Your task to perform on an android device: Clear all items from cart on bestbuy. Search for "jbl flip 4" on bestbuy, select the first entry, and add it to the cart. Image 0: 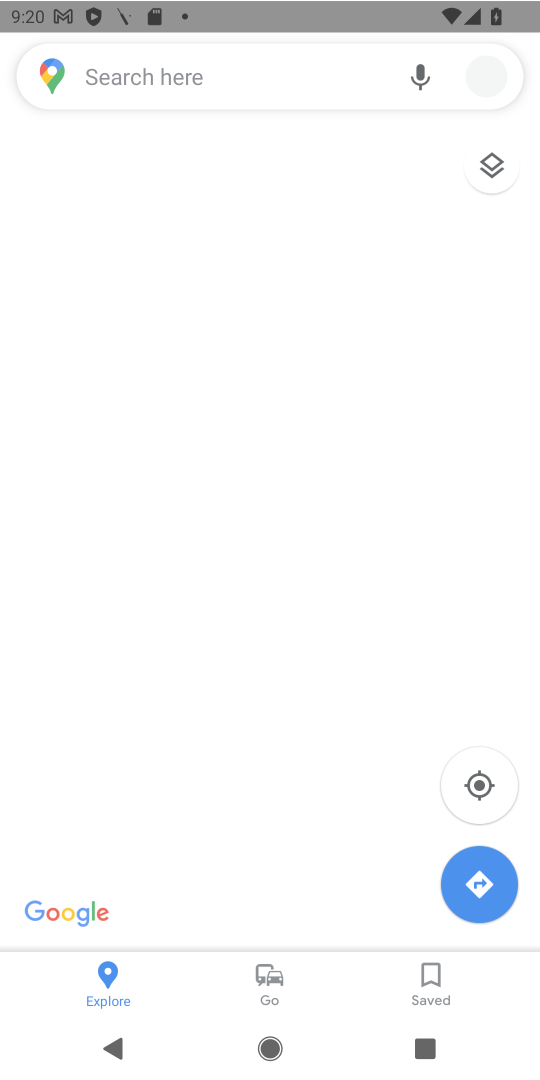
Step 0: press home button
Your task to perform on an android device: Clear all items from cart on bestbuy. Search for "jbl flip 4" on bestbuy, select the first entry, and add it to the cart. Image 1: 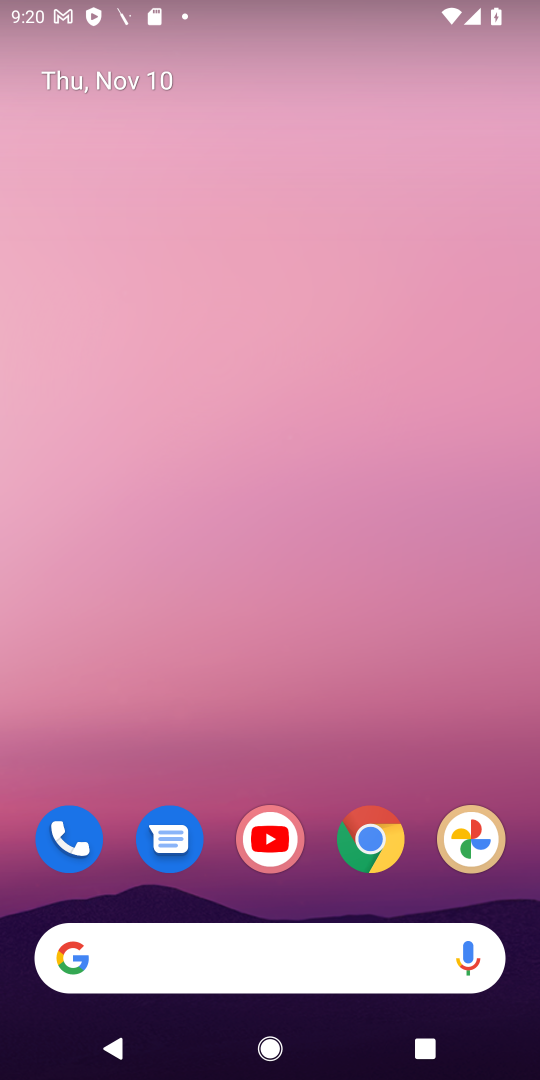
Step 1: click (366, 831)
Your task to perform on an android device: Clear all items from cart on bestbuy. Search for "jbl flip 4" on bestbuy, select the first entry, and add it to the cart. Image 2: 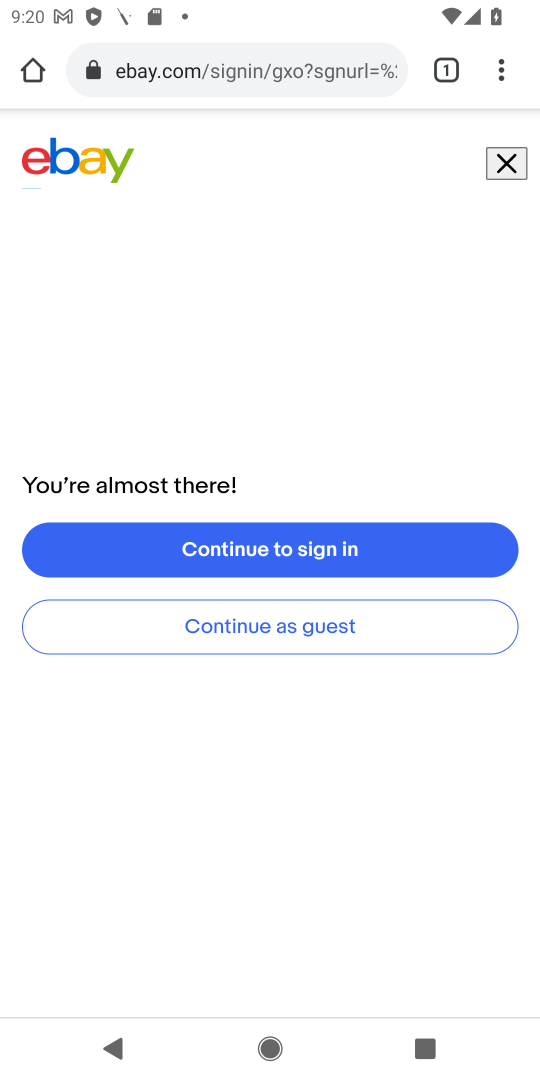
Step 2: click (263, 77)
Your task to perform on an android device: Clear all items from cart on bestbuy. Search for "jbl flip 4" on bestbuy, select the first entry, and add it to the cart. Image 3: 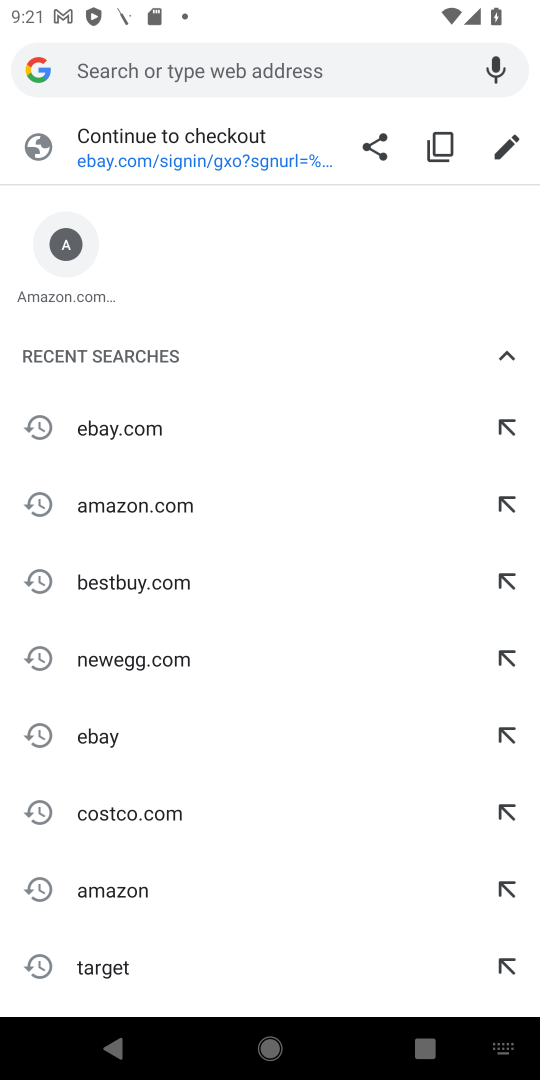
Step 3: type "bestbuy"
Your task to perform on an android device: Clear all items from cart on bestbuy. Search for "jbl flip 4" on bestbuy, select the first entry, and add it to the cart. Image 4: 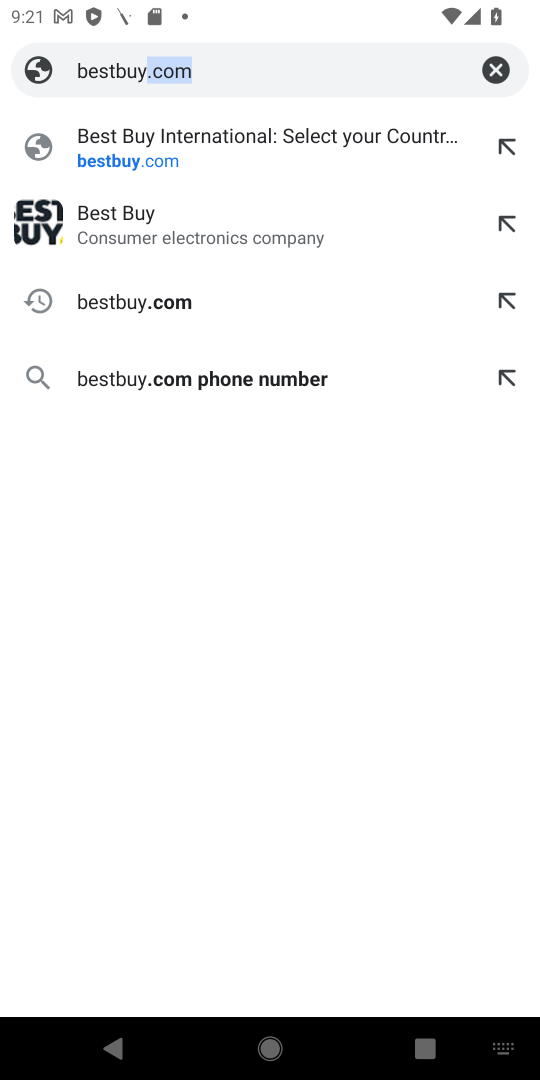
Step 4: click (361, 71)
Your task to perform on an android device: Clear all items from cart on bestbuy. Search for "jbl flip 4" on bestbuy, select the first entry, and add it to the cart. Image 5: 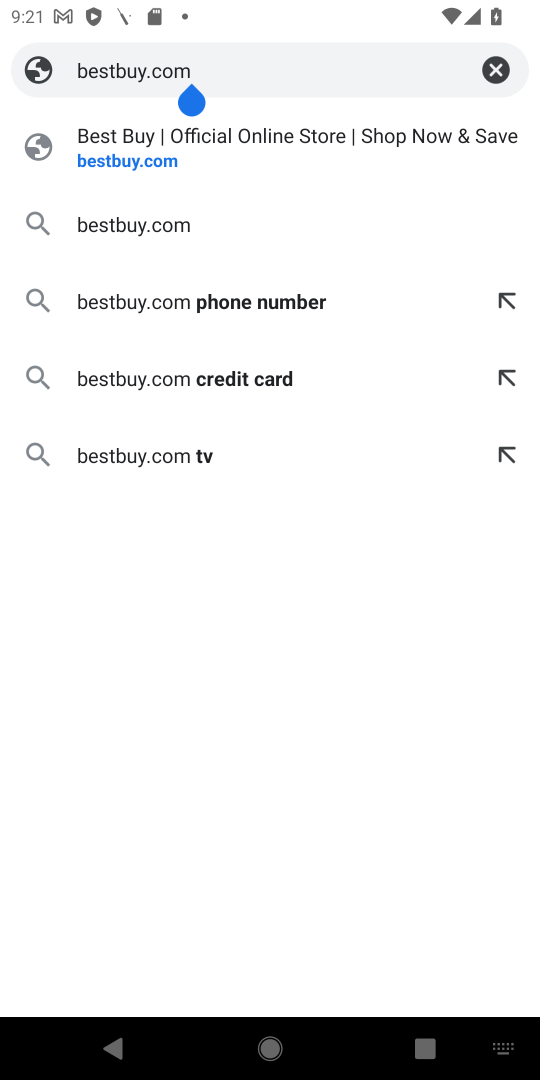
Step 5: click (154, 226)
Your task to perform on an android device: Clear all items from cart on bestbuy. Search for "jbl flip 4" on bestbuy, select the first entry, and add it to the cart. Image 6: 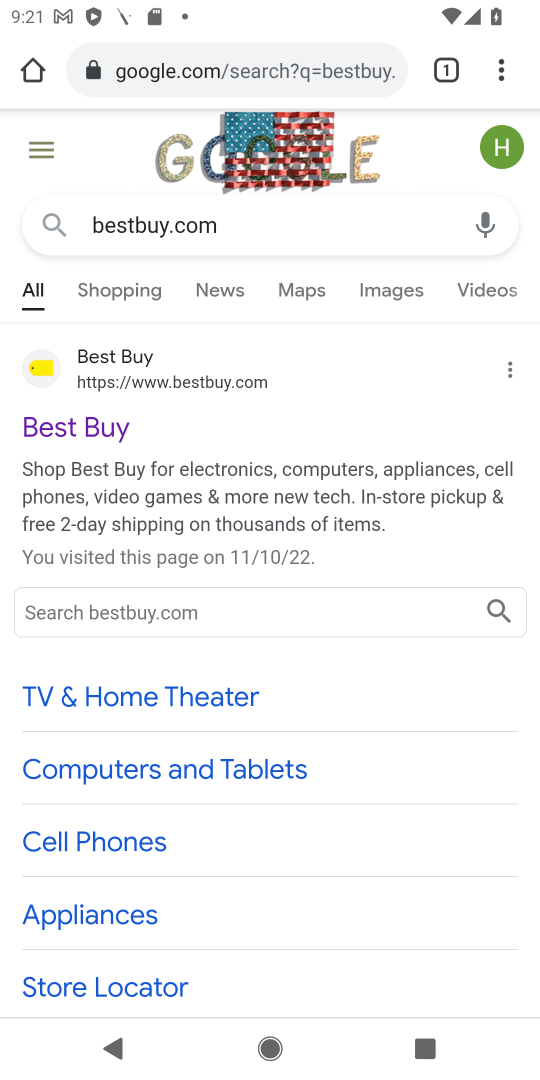
Step 6: click (124, 352)
Your task to perform on an android device: Clear all items from cart on bestbuy. Search for "jbl flip 4" on bestbuy, select the first entry, and add it to the cart. Image 7: 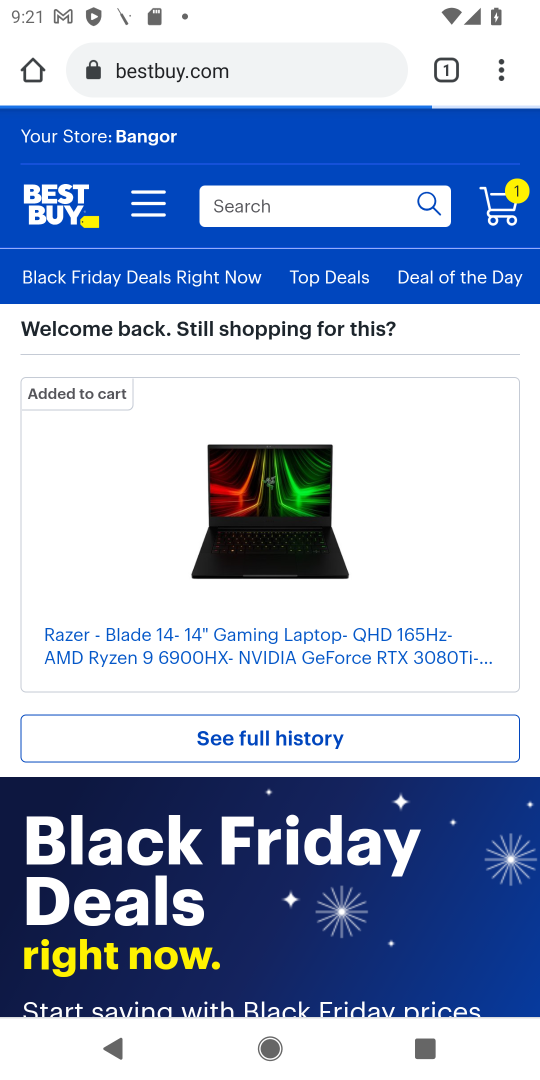
Step 7: click (500, 211)
Your task to perform on an android device: Clear all items from cart on bestbuy. Search for "jbl flip 4" on bestbuy, select the first entry, and add it to the cart. Image 8: 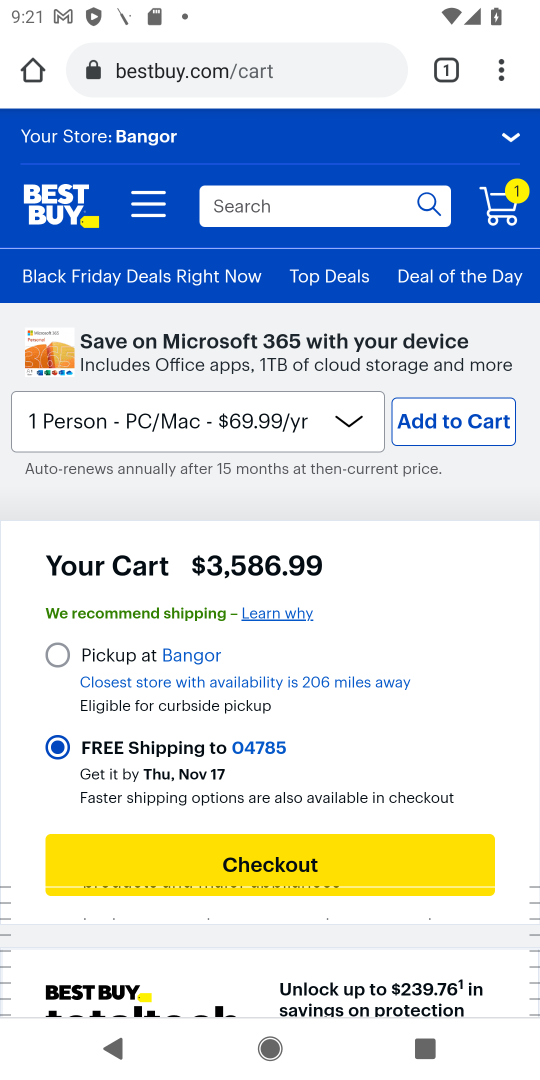
Step 8: drag from (461, 682) to (479, 254)
Your task to perform on an android device: Clear all items from cart on bestbuy. Search for "jbl flip 4" on bestbuy, select the first entry, and add it to the cart. Image 9: 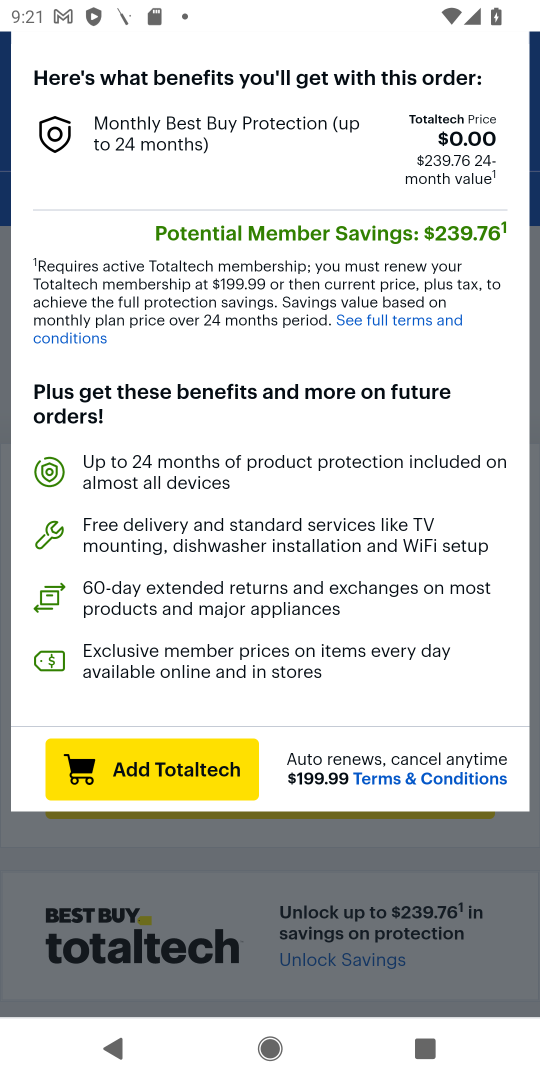
Step 9: drag from (470, 116) to (385, 573)
Your task to perform on an android device: Clear all items from cart on bestbuy. Search for "jbl flip 4" on bestbuy, select the first entry, and add it to the cart. Image 10: 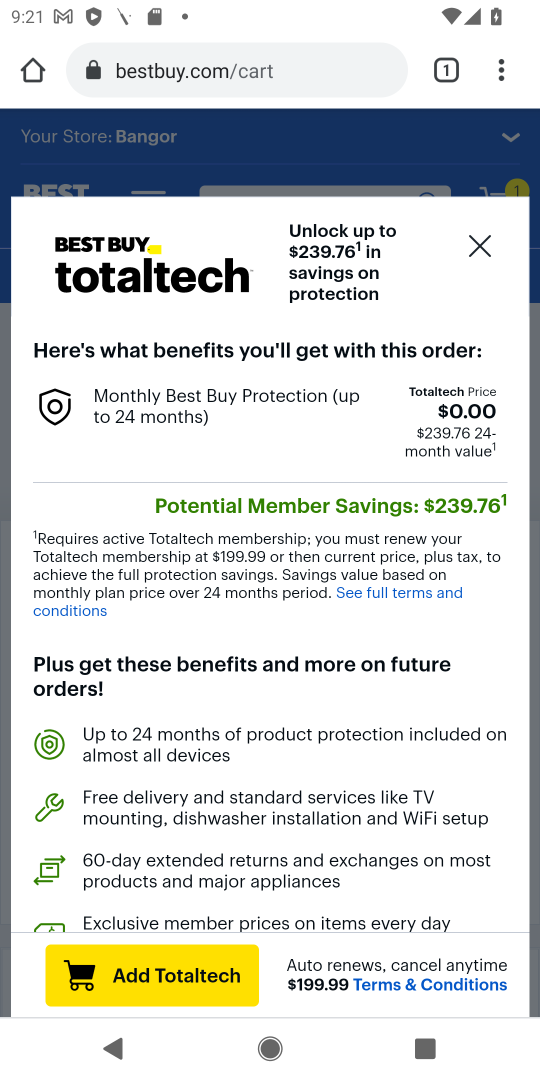
Step 10: click (479, 249)
Your task to perform on an android device: Clear all items from cart on bestbuy. Search for "jbl flip 4" on bestbuy, select the first entry, and add it to the cart. Image 11: 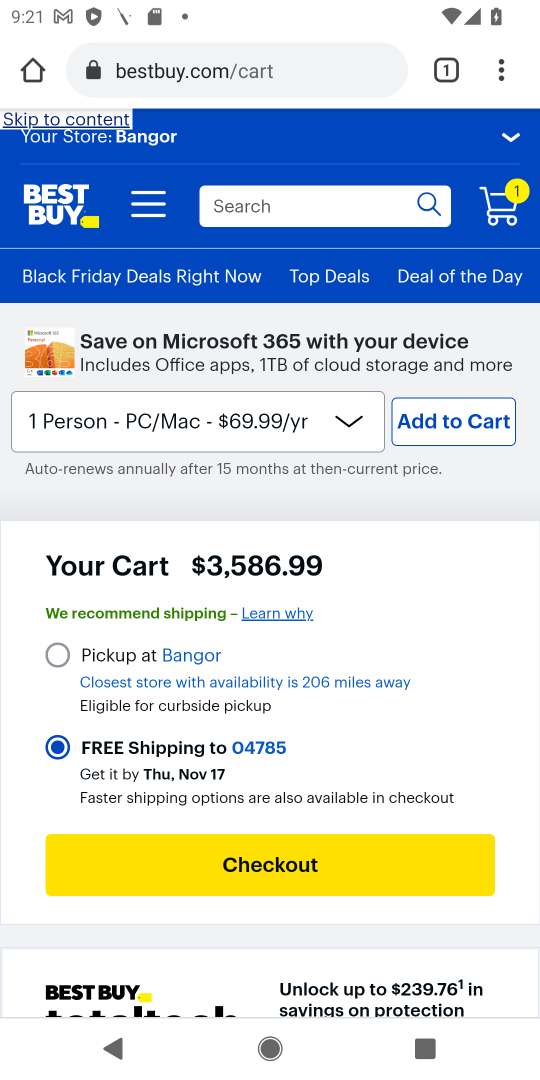
Step 11: drag from (466, 579) to (506, 398)
Your task to perform on an android device: Clear all items from cart on bestbuy. Search for "jbl flip 4" on bestbuy, select the first entry, and add it to the cart. Image 12: 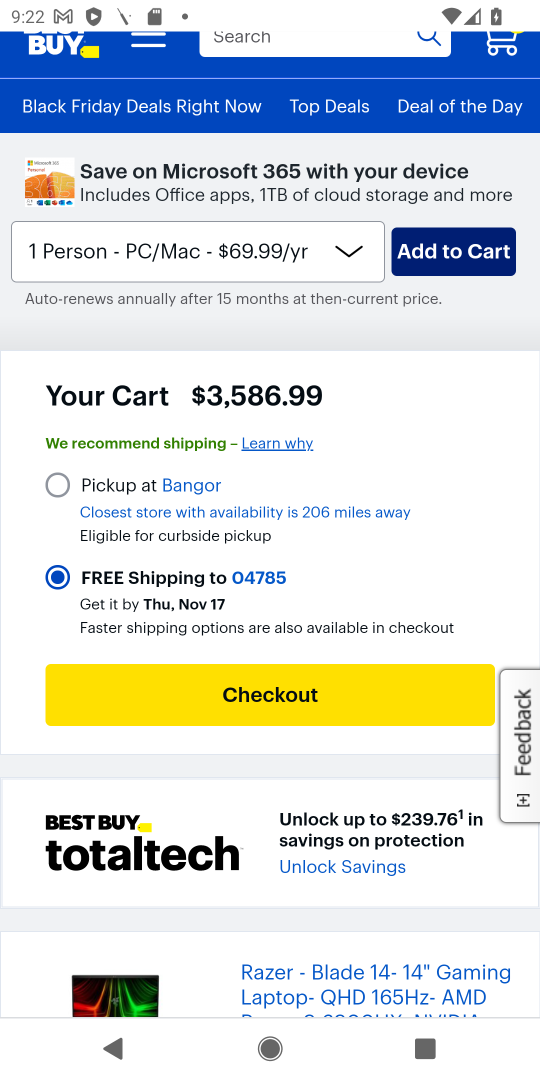
Step 12: drag from (221, 775) to (259, 369)
Your task to perform on an android device: Clear all items from cart on bestbuy. Search for "jbl flip 4" on bestbuy, select the first entry, and add it to the cart. Image 13: 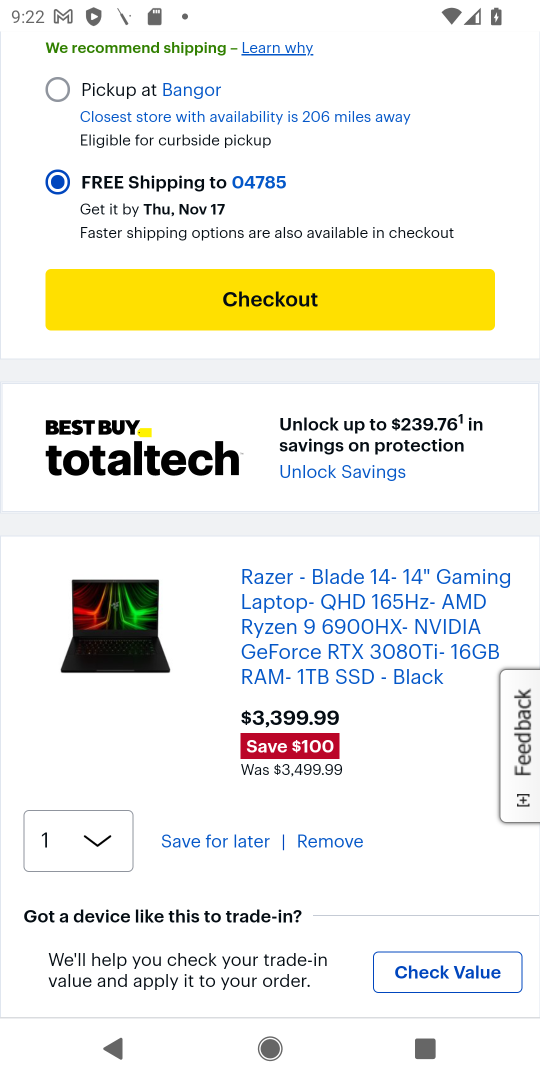
Step 13: click (339, 834)
Your task to perform on an android device: Clear all items from cart on bestbuy. Search for "jbl flip 4" on bestbuy, select the first entry, and add it to the cart. Image 14: 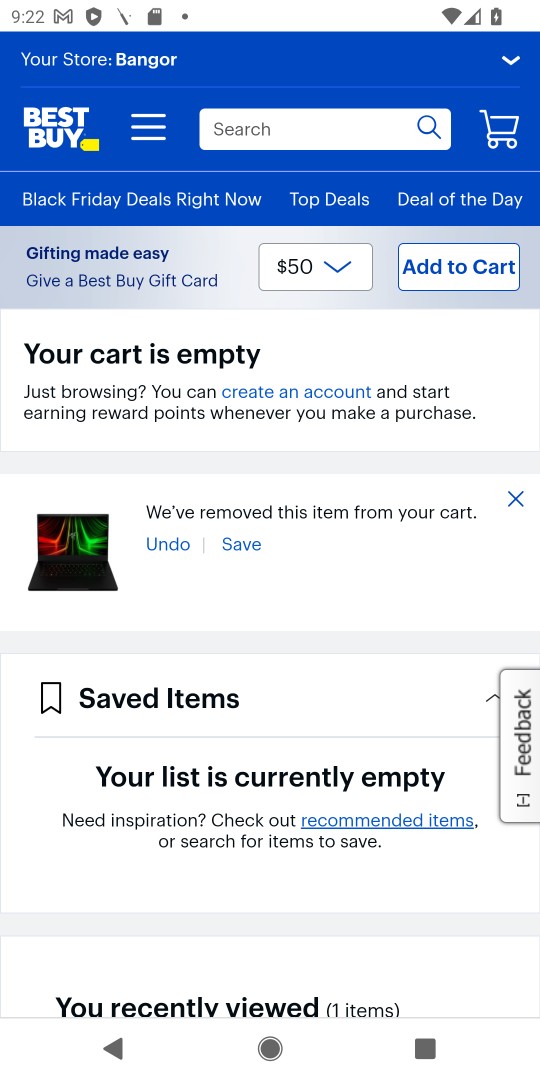
Step 14: click (348, 133)
Your task to perform on an android device: Clear all items from cart on bestbuy. Search for "jbl flip 4" on bestbuy, select the first entry, and add it to the cart. Image 15: 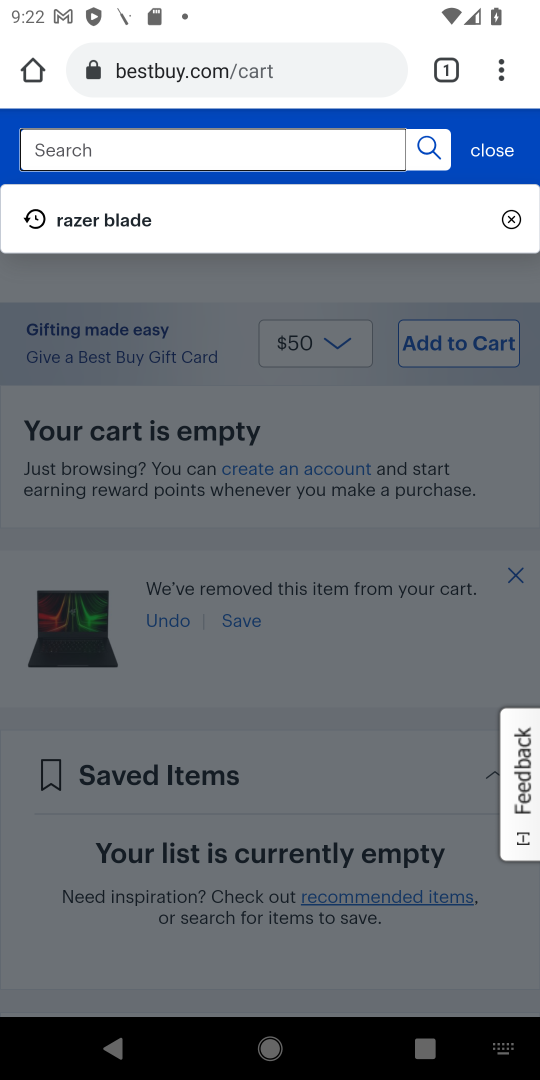
Step 15: type "jbl flip 4"
Your task to perform on an android device: Clear all items from cart on bestbuy. Search for "jbl flip 4" on bestbuy, select the first entry, and add it to the cart. Image 16: 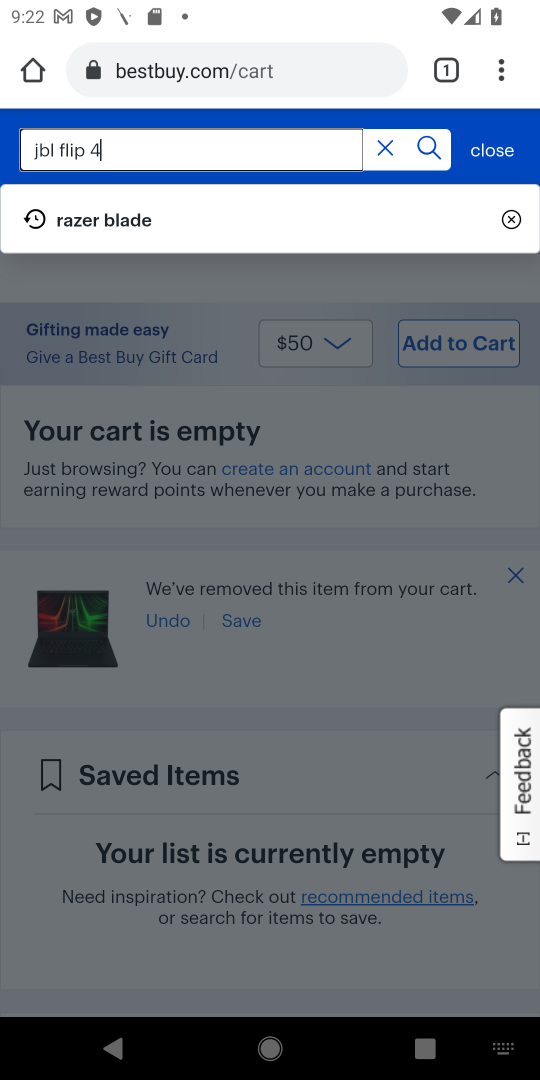
Step 16: press enter
Your task to perform on an android device: Clear all items from cart on bestbuy. Search for "jbl flip 4" on bestbuy, select the first entry, and add it to the cart. Image 17: 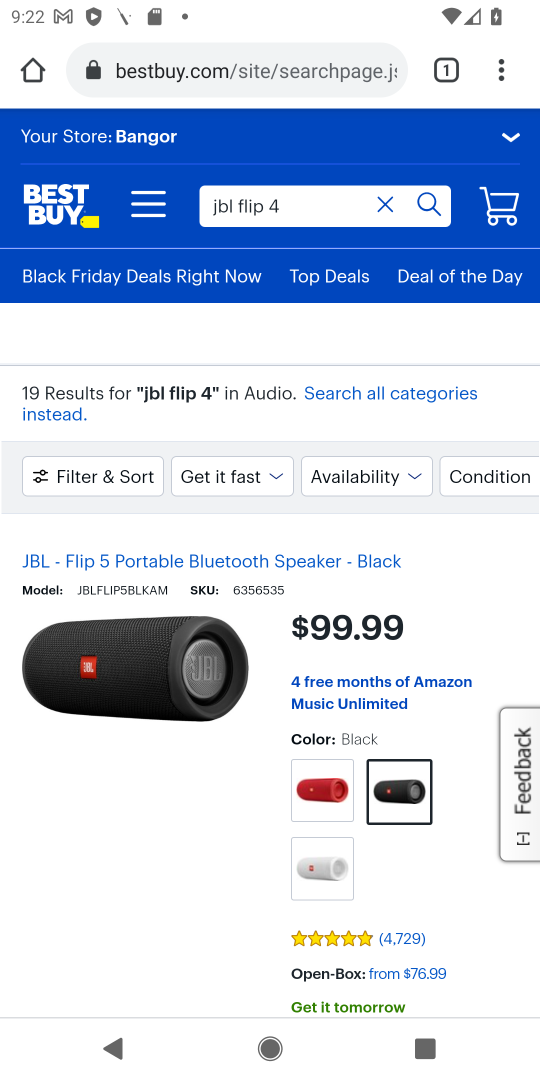
Step 17: task complete